Your task to perform on an android device: Do I have any events tomorrow? Image 0: 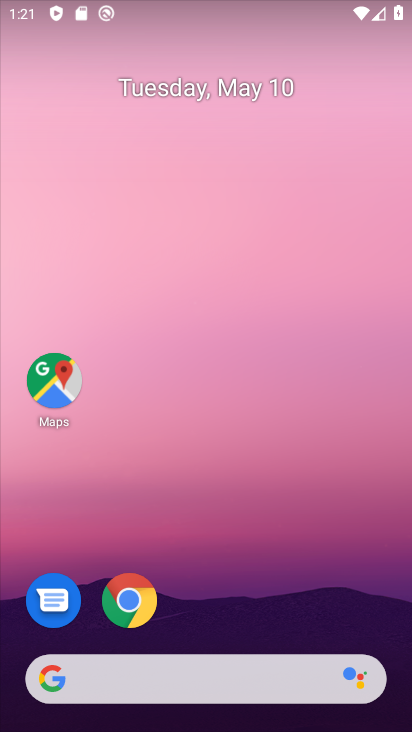
Step 0: drag from (193, 644) to (140, 60)
Your task to perform on an android device: Do I have any events tomorrow? Image 1: 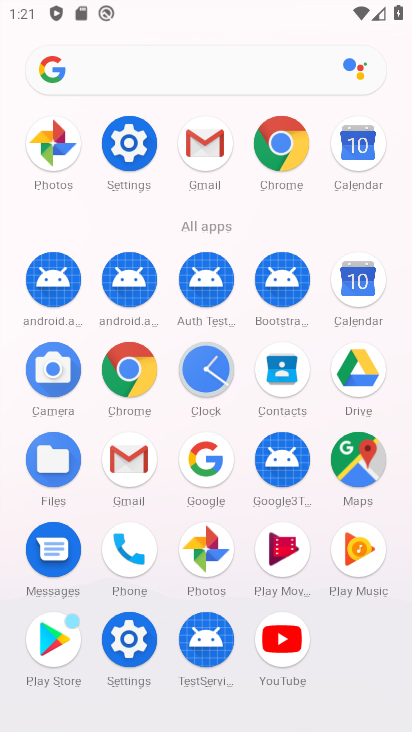
Step 1: click (364, 289)
Your task to perform on an android device: Do I have any events tomorrow? Image 2: 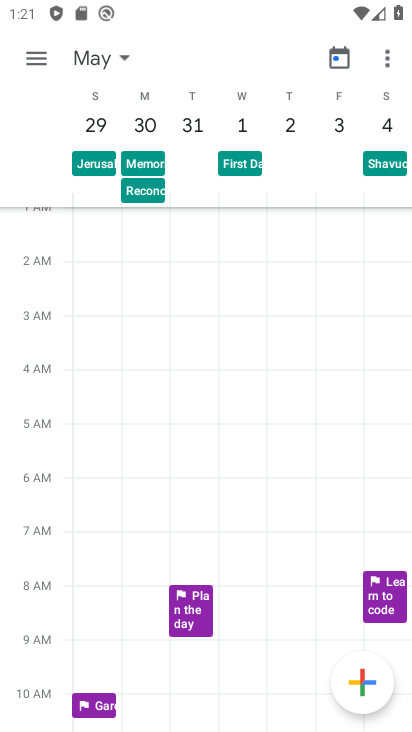
Step 2: click (348, 50)
Your task to perform on an android device: Do I have any events tomorrow? Image 3: 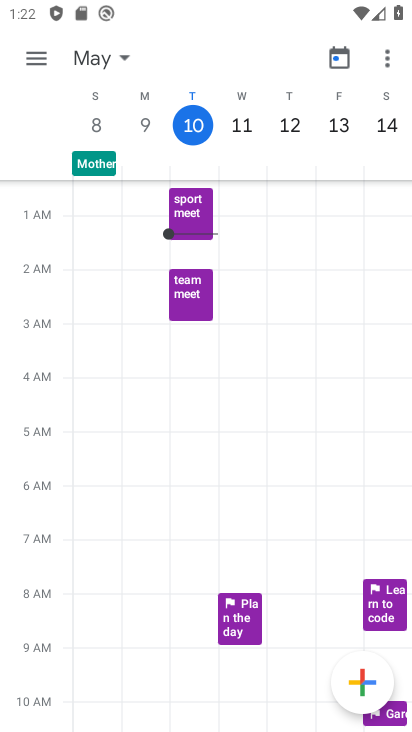
Step 3: click (246, 122)
Your task to perform on an android device: Do I have any events tomorrow? Image 4: 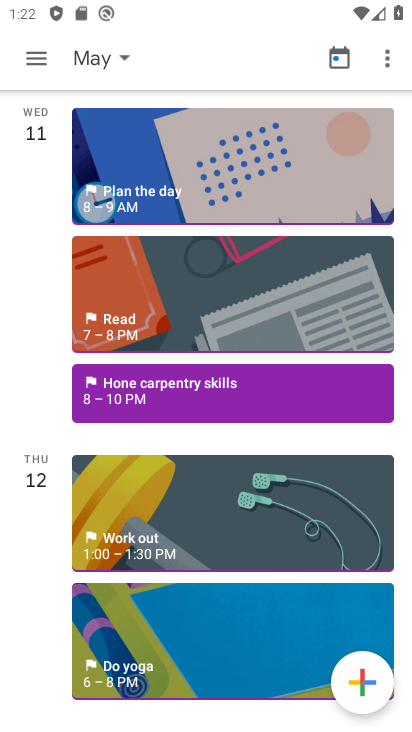
Step 4: task complete